Your task to perform on an android device: change timer sound Image 0: 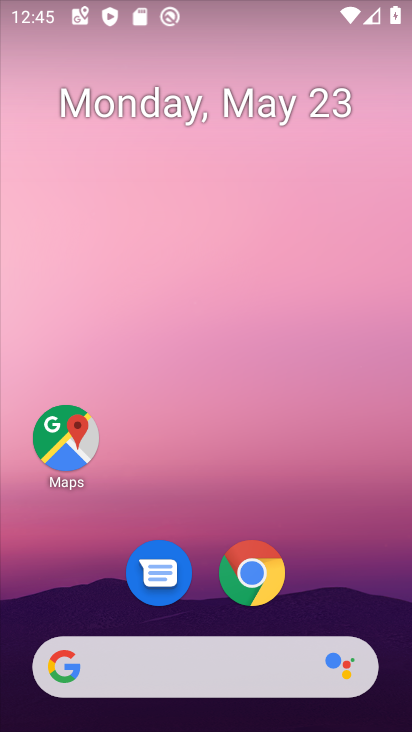
Step 0: drag from (307, 625) to (292, 45)
Your task to perform on an android device: change timer sound Image 1: 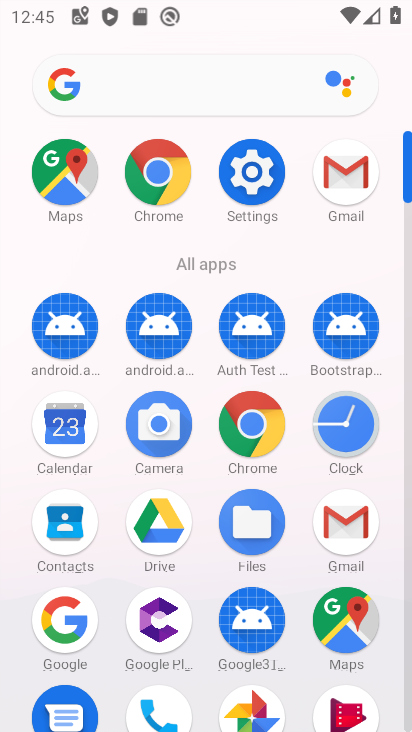
Step 1: click (327, 461)
Your task to perform on an android device: change timer sound Image 2: 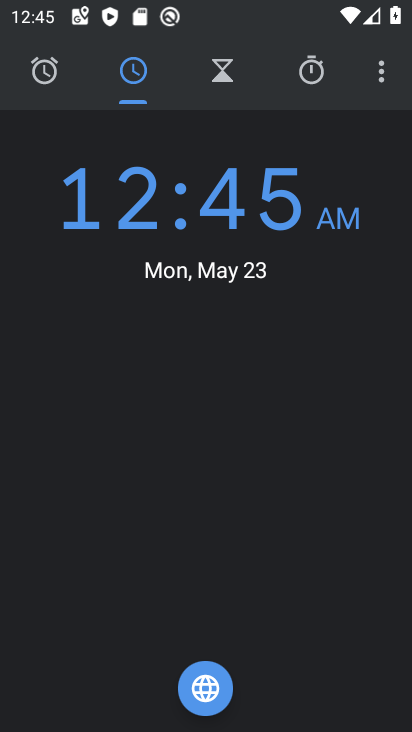
Step 2: click (383, 56)
Your task to perform on an android device: change timer sound Image 3: 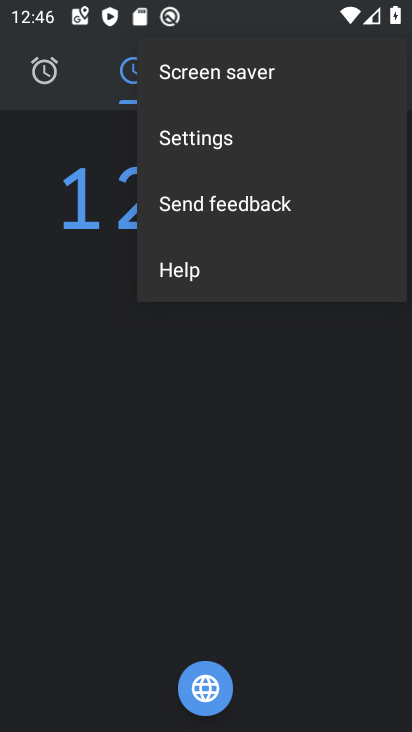
Step 3: click (258, 153)
Your task to perform on an android device: change timer sound Image 4: 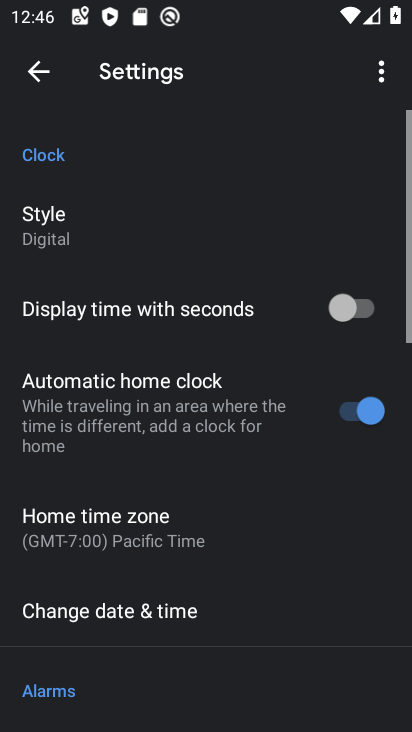
Step 4: drag from (284, 610) to (303, 152)
Your task to perform on an android device: change timer sound Image 5: 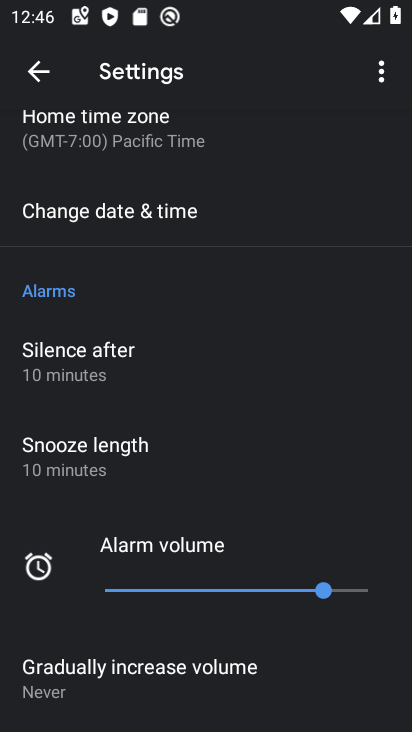
Step 5: drag from (158, 680) to (264, 123)
Your task to perform on an android device: change timer sound Image 6: 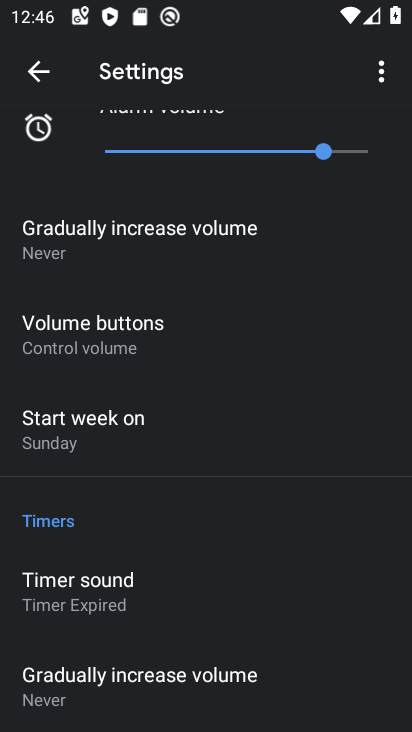
Step 6: click (128, 577)
Your task to perform on an android device: change timer sound Image 7: 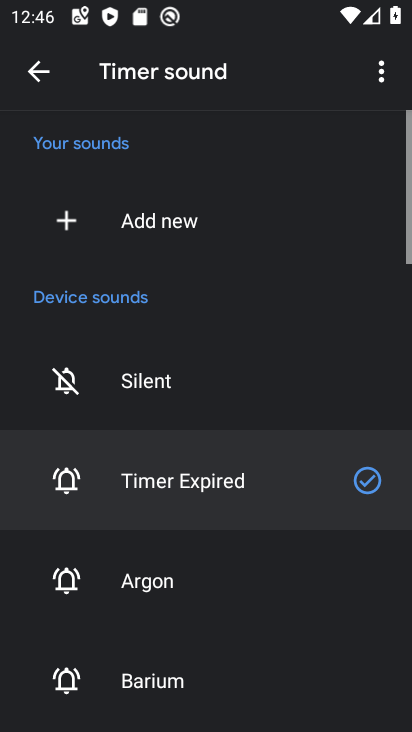
Step 7: click (153, 585)
Your task to perform on an android device: change timer sound Image 8: 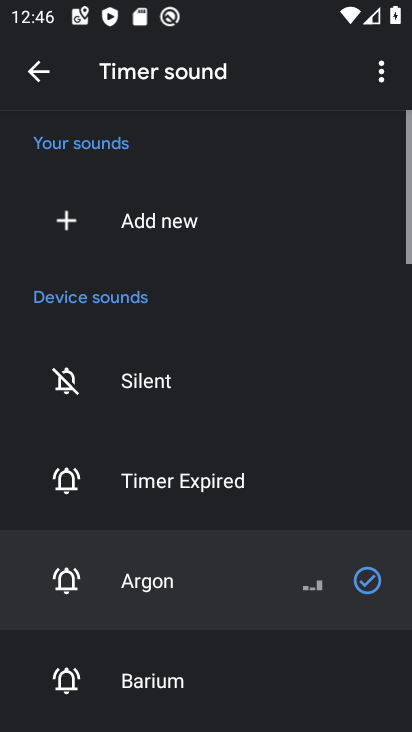
Step 8: task complete